Your task to perform on an android device: install app "Spotify: Music and Podcasts" Image 0: 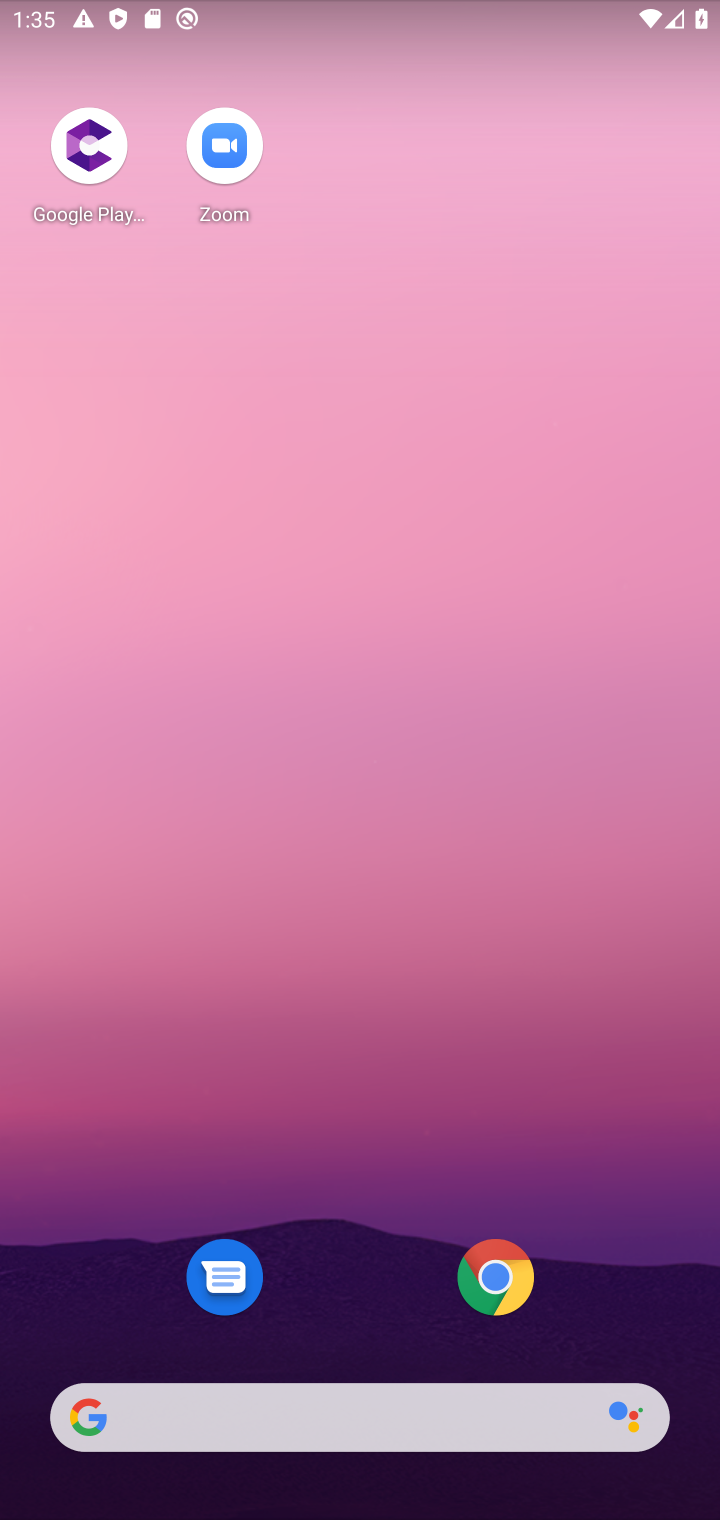
Step 0: drag from (384, 1326) to (400, 255)
Your task to perform on an android device: install app "Spotify: Music and Podcasts" Image 1: 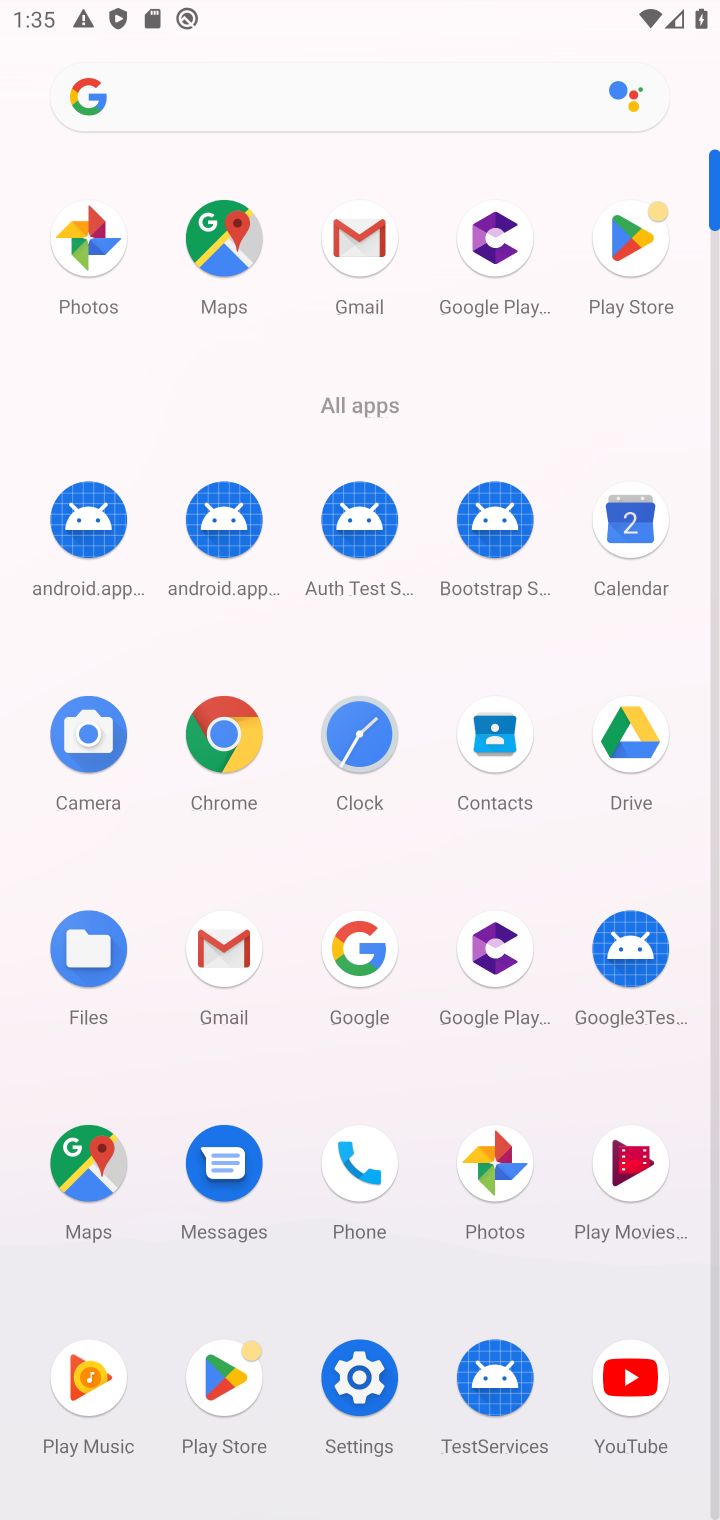
Step 1: click (611, 240)
Your task to perform on an android device: install app "Spotify: Music and Podcasts" Image 2: 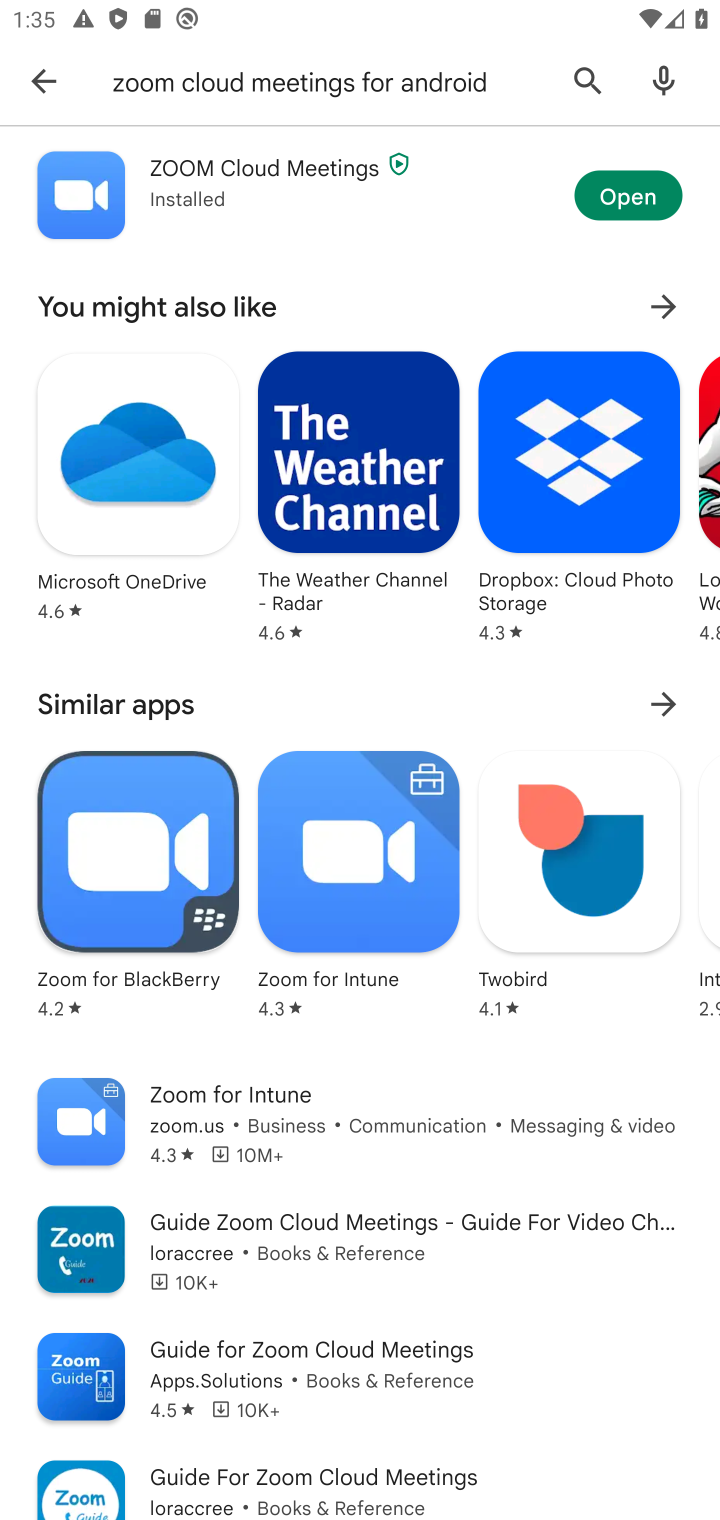
Step 2: click (578, 91)
Your task to perform on an android device: install app "Spotify: Music and Podcasts" Image 3: 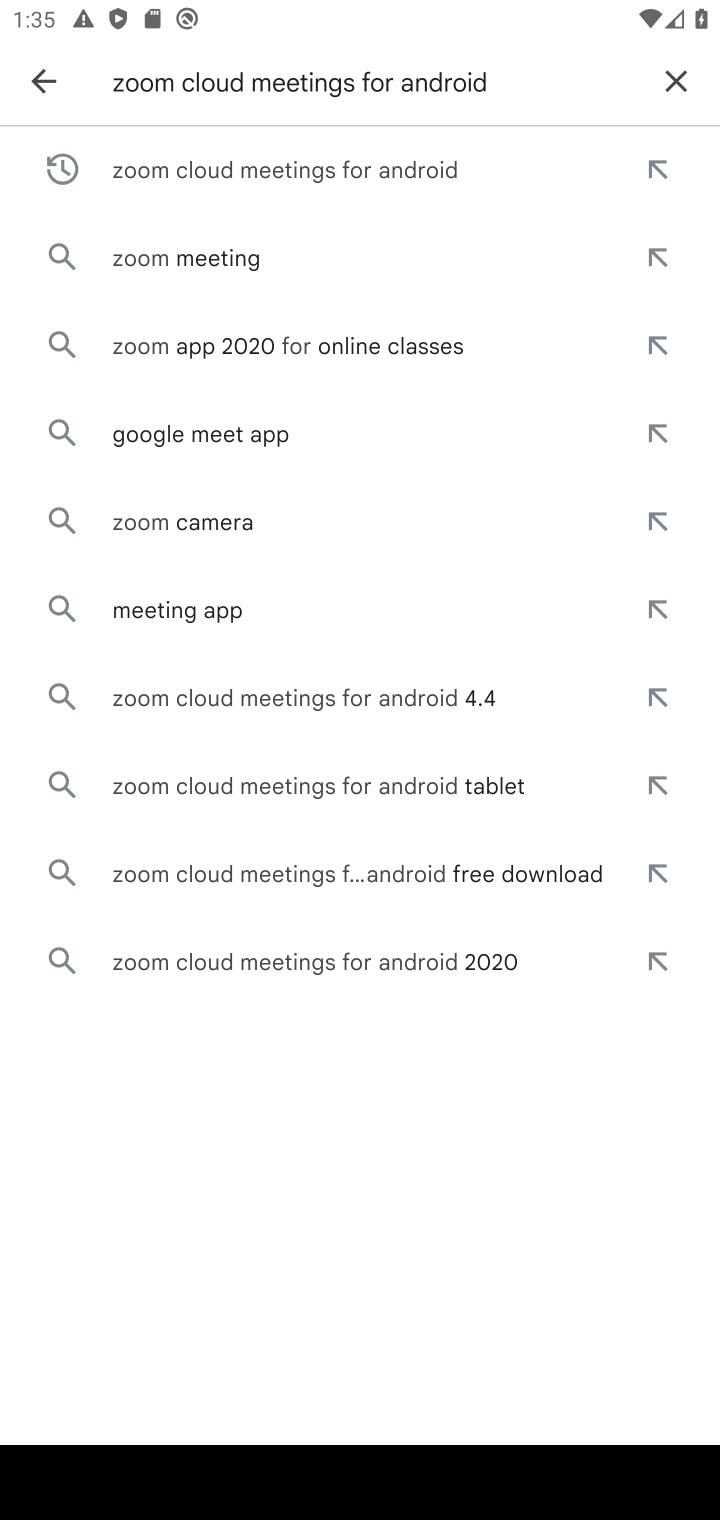
Step 3: click (670, 77)
Your task to perform on an android device: install app "Spotify: Music and Podcasts" Image 4: 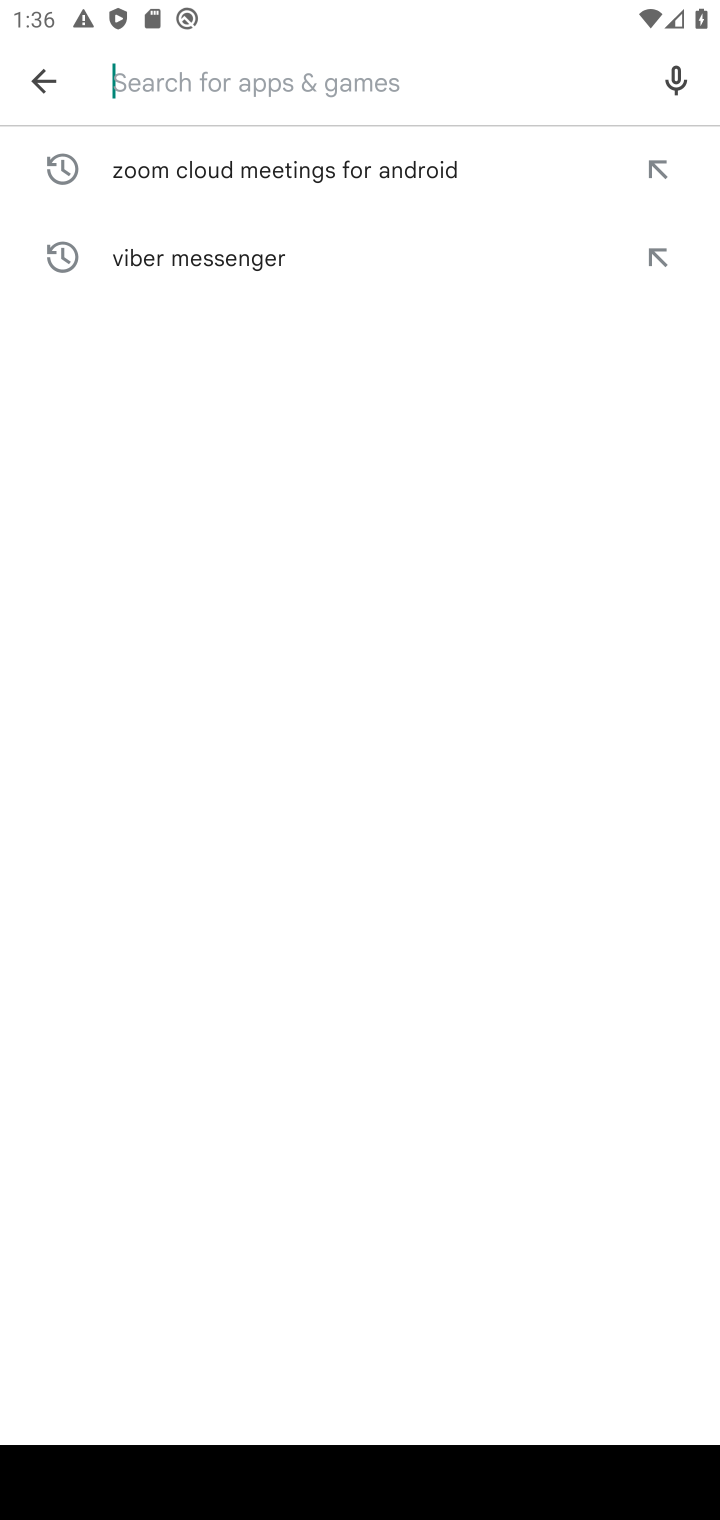
Step 4: click (370, 82)
Your task to perform on an android device: install app "Spotify: Music and Podcasts" Image 5: 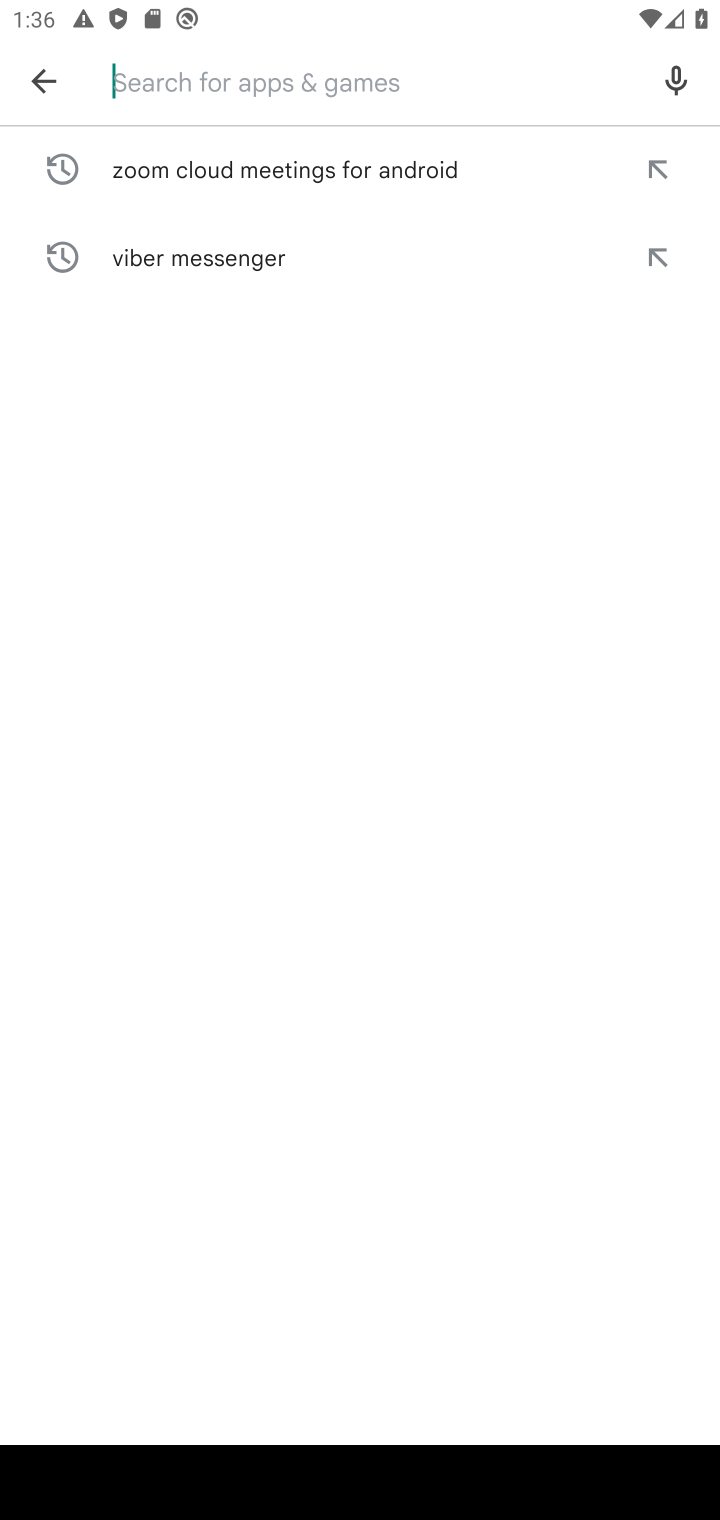
Step 5: click (201, 79)
Your task to perform on an android device: install app "Spotify: Music and Podcasts" Image 6: 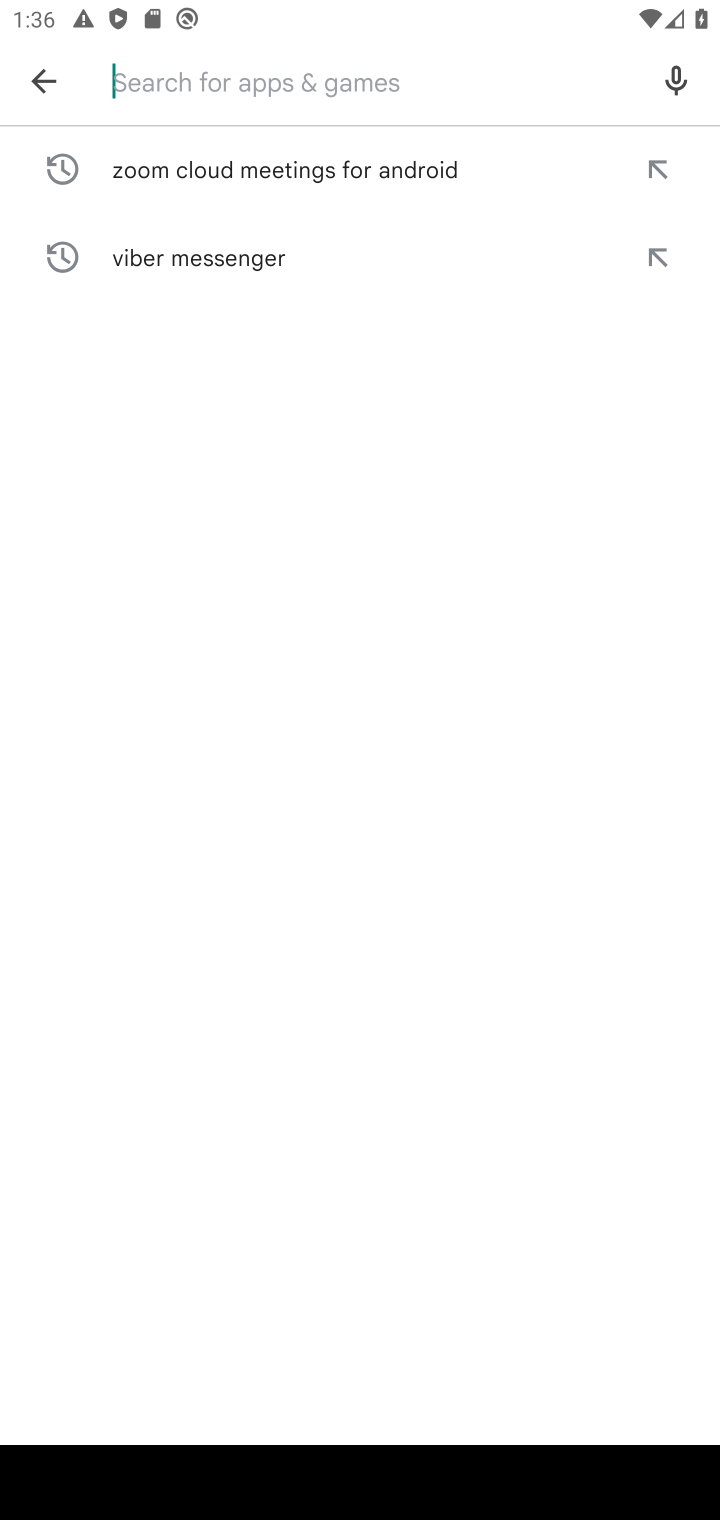
Step 6: type "Spotify: Music and Podcasts"
Your task to perform on an android device: install app "Spotify: Music and Podcasts" Image 7: 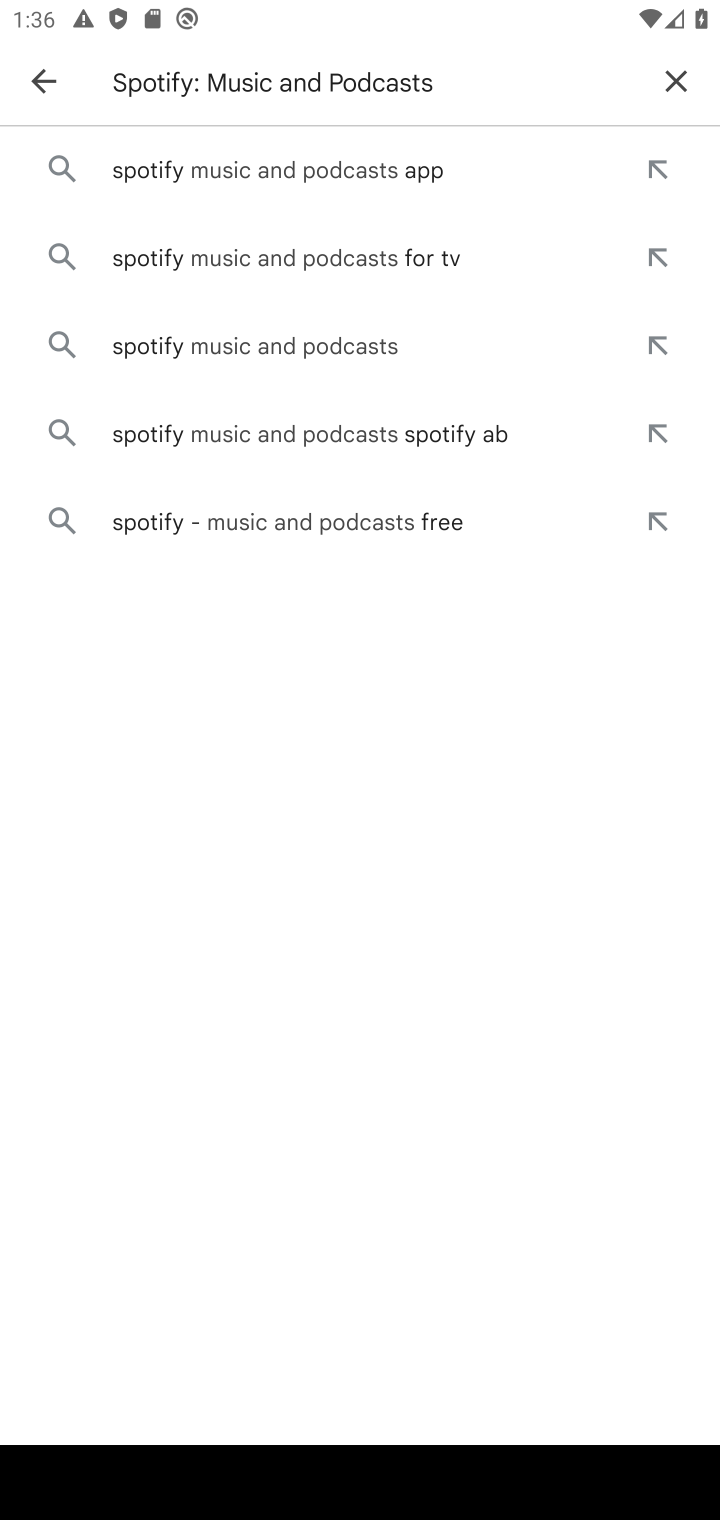
Step 7: click (212, 165)
Your task to perform on an android device: install app "Spotify: Music and Podcasts" Image 8: 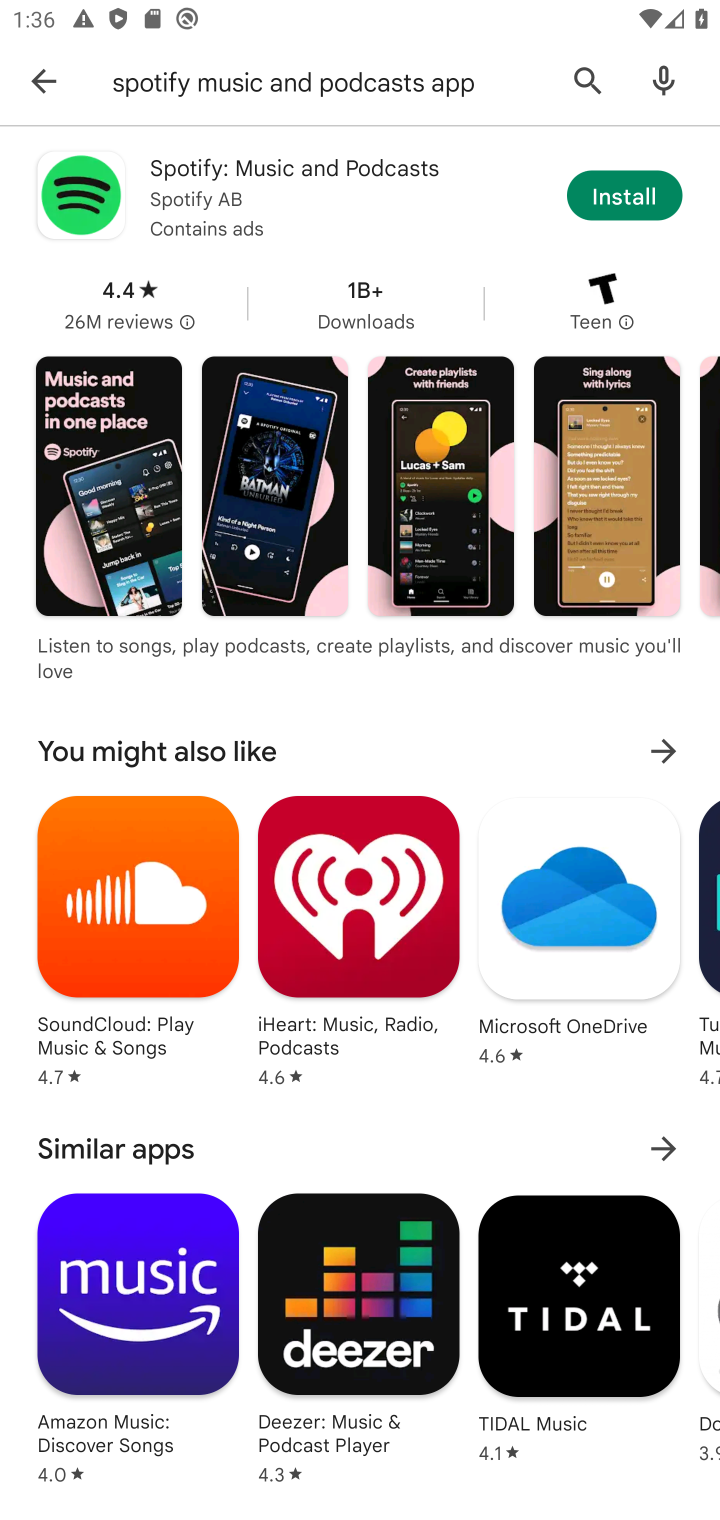
Step 8: click (590, 196)
Your task to perform on an android device: install app "Spotify: Music and Podcasts" Image 9: 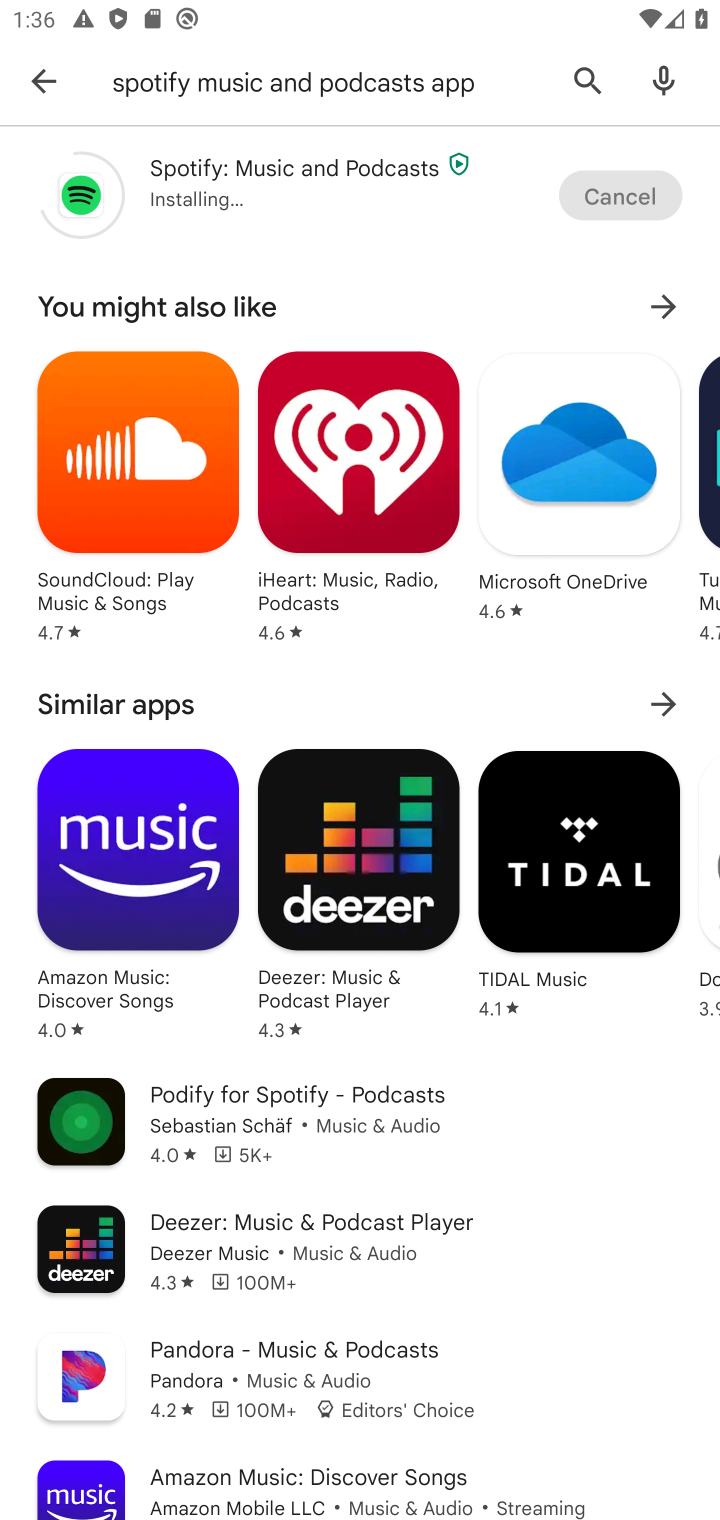
Step 9: task complete